Your task to perform on an android device: refresh tabs in the chrome app Image 0: 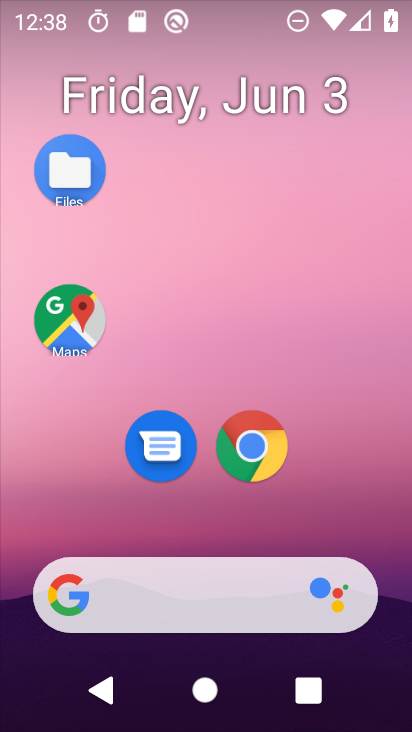
Step 0: drag from (243, 670) to (187, 250)
Your task to perform on an android device: refresh tabs in the chrome app Image 1: 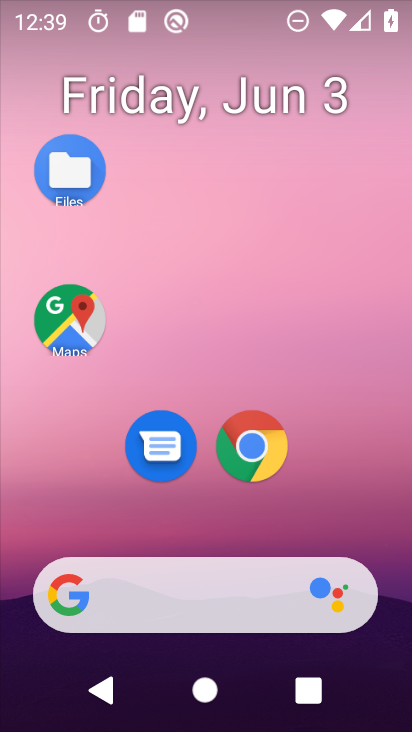
Step 1: drag from (258, 267) to (258, 167)
Your task to perform on an android device: refresh tabs in the chrome app Image 2: 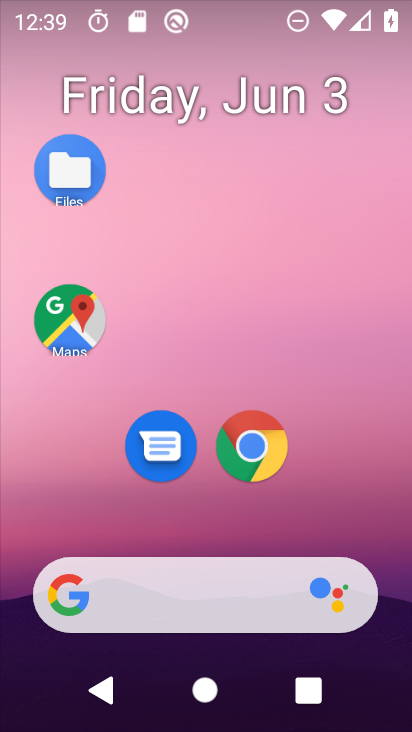
Step 2: drag from (231, 592) to (191, 296)
Your task to perform on an android device: refresh tabs in the chrome app Image 3: 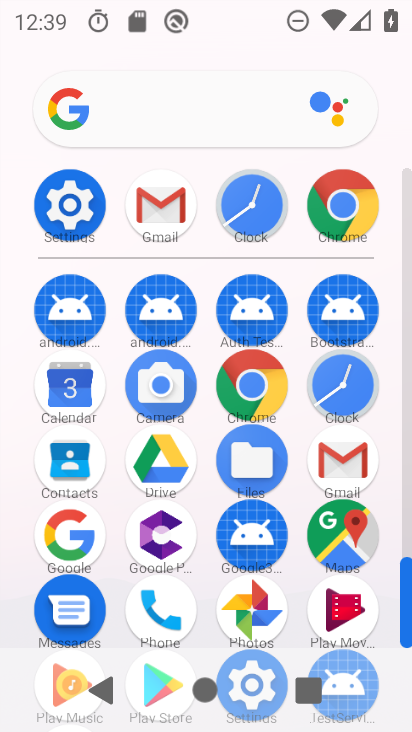
Step 3: click (333, 217)
Your task to perform on an android device: refresh tabs in the chrome app Image 4: 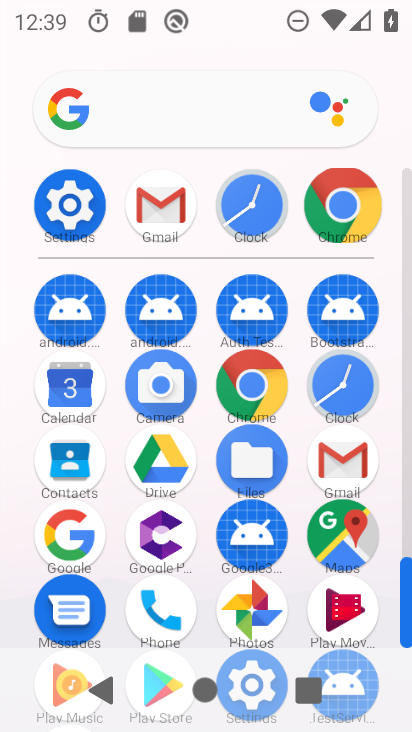
Step 4: click (334, 216)
Your task to perform on an android device: refresh tabs in the chrome app Image 5: 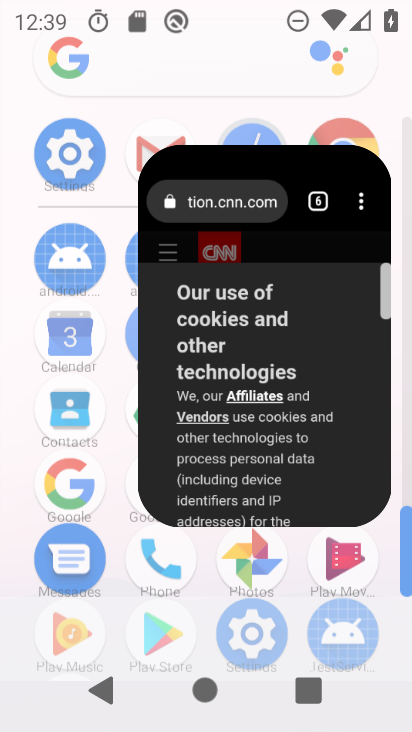
Step 5: click (334, 216)
Your task to perform on an android device: refresh tabs in the chrome app Image 6: 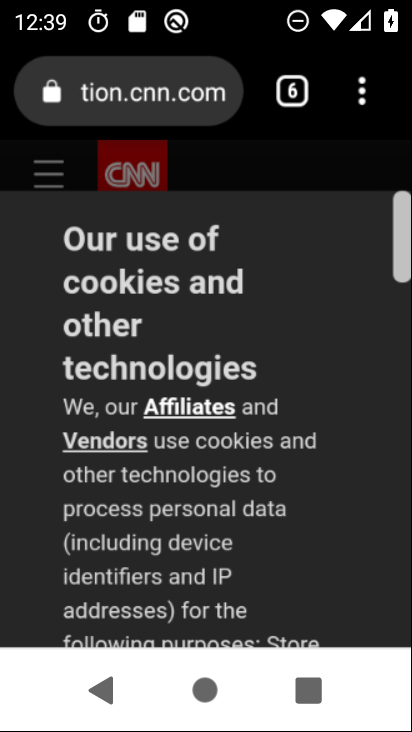
Step 6: click (337, 215)
Your task to perform on an android device: refresh tabs in the chrome app Image 7: 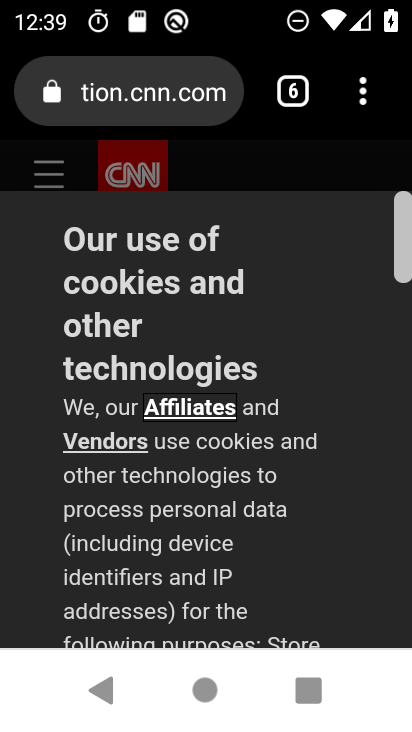
Step 7: drag from (358, 80) to (332, 613)
Your task to perform on an android device: refresh tabs in the chrome app Image 8: 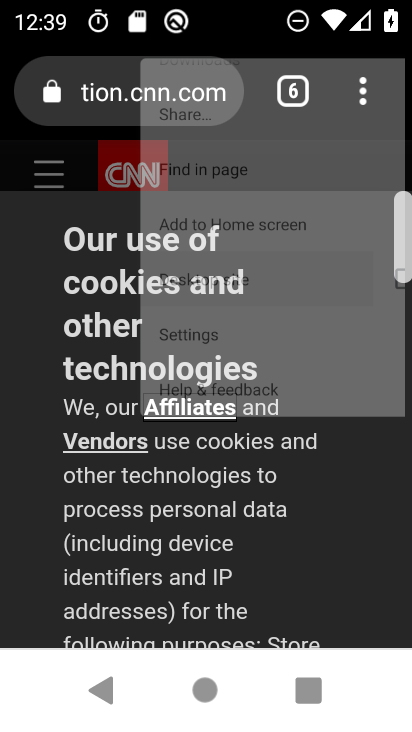
Step 8: drag from (226, 294) to (236, 367)
Your task to perform on an android device: refresh tabs in the chrome app Image 9: 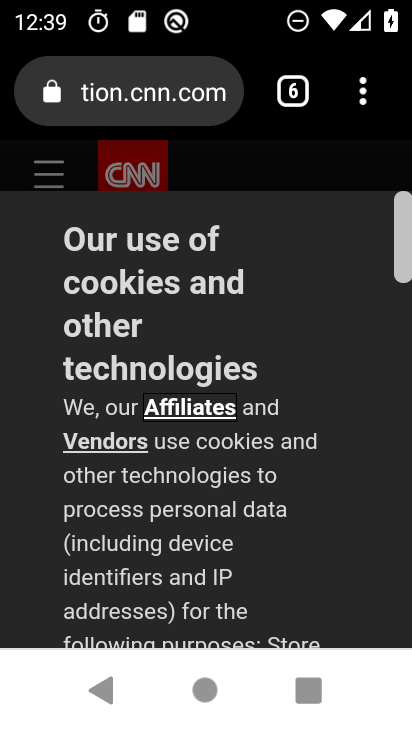
Step 9: drag from (363, 86) to (408, 94)
Your task to perform on an android device: refresh tabs in the chrome app Image 10: 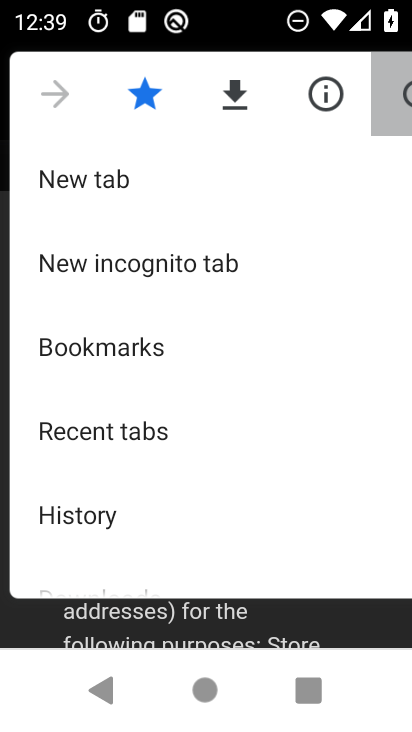
Step 10: click (408, 94)
Your task to perform on an android device: refresh tabs in the chrome app Image 11: 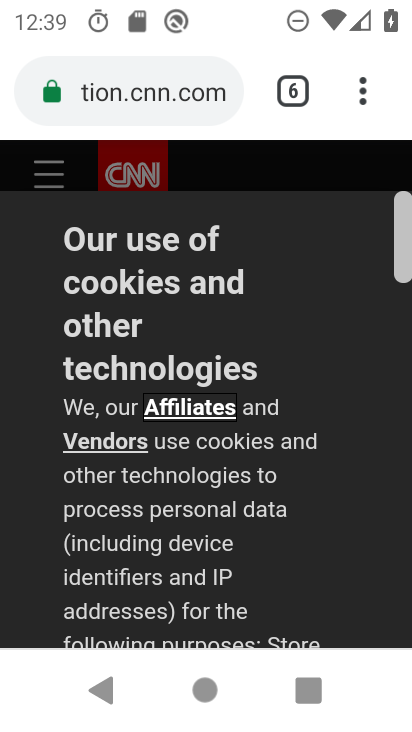
Step 11: task complete